Your task to perform on an android device: Go to Reddit.com Image 0: 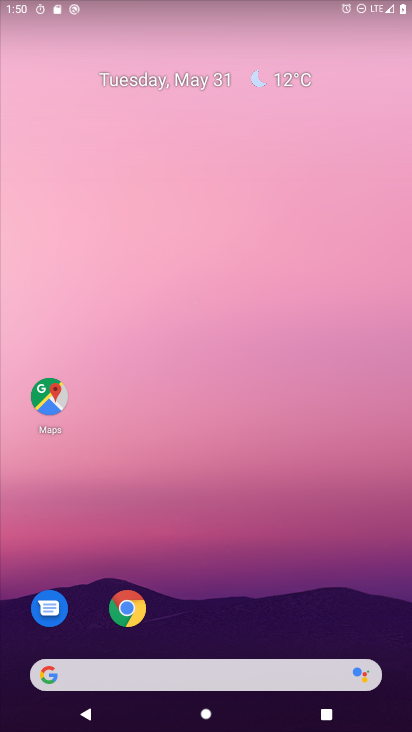
Step 0: click (130, 608)
Your task to perform on an android device: Go to Reddit.com Image 1: 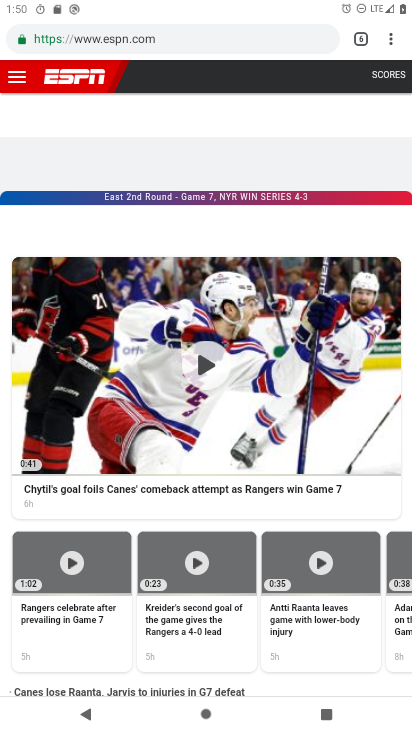
Step 1: click (131, 41)
Your task to perform on an android device: Go to Reddit.com Image 2: 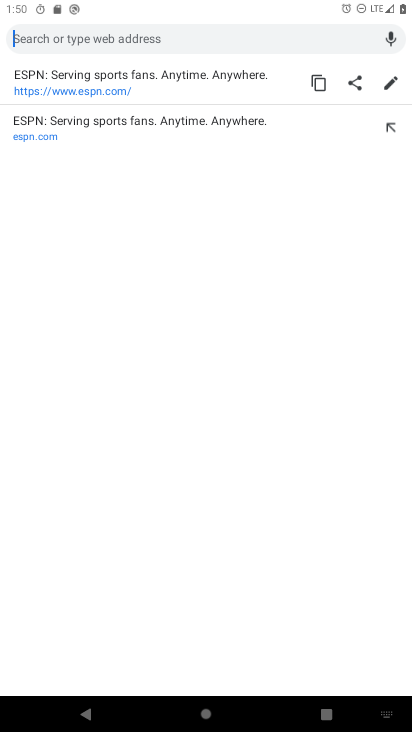
Step 2: type "reddit.com"
Your task to perform on an android device: Go to Reddit.com Image 3: 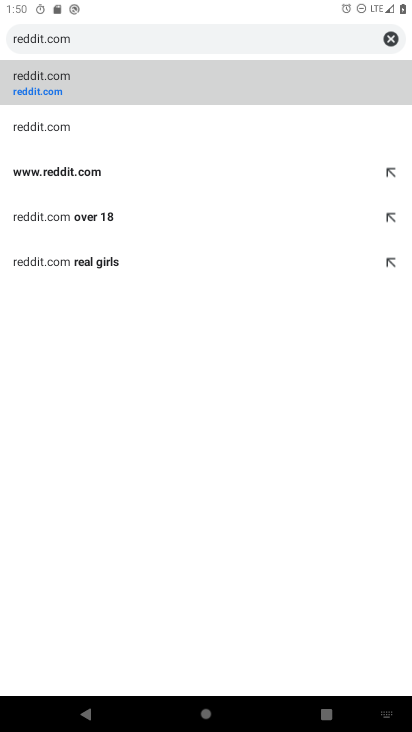
Step 3: click (30, 94)
Your task to perform on an android device: Go to Reddit.com Image 4: 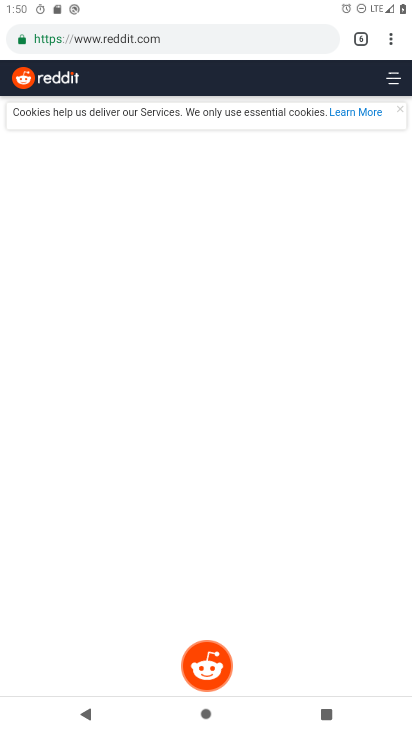
Step 4: task complete